Your task to perform on an android device: turn pop-ups off in chrome Image 0: 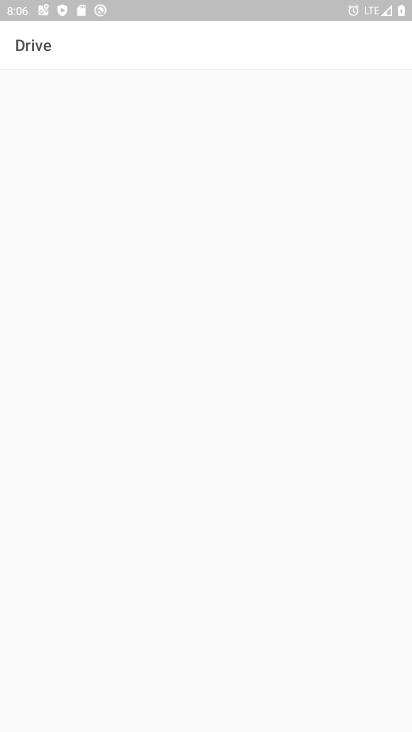
Step 0: press home button
Your task to perform on an android device: turn pop-ups off in chrome Image 1: 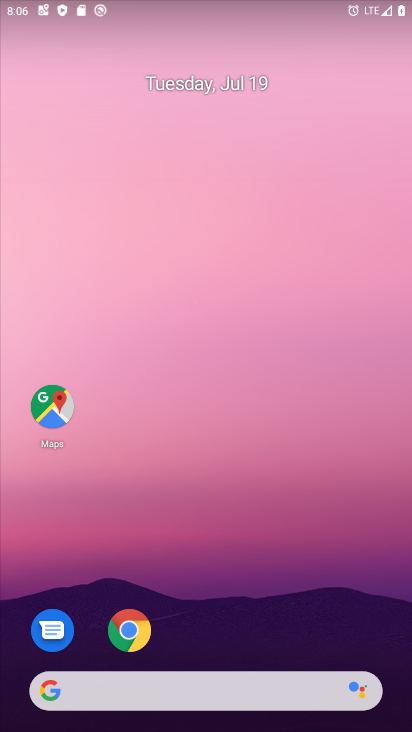
Step 1: drag from (246, 641) to (238, 184)
Your task to perform on an android device: turn pop-ups off in chrome Image 2: 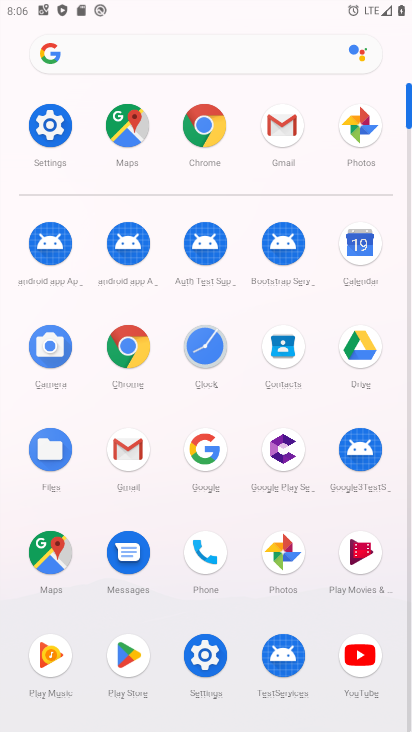
Step 2: click (204, 121)
Your task to perform on an android device: turn pop-ups off in chrome Image 3: 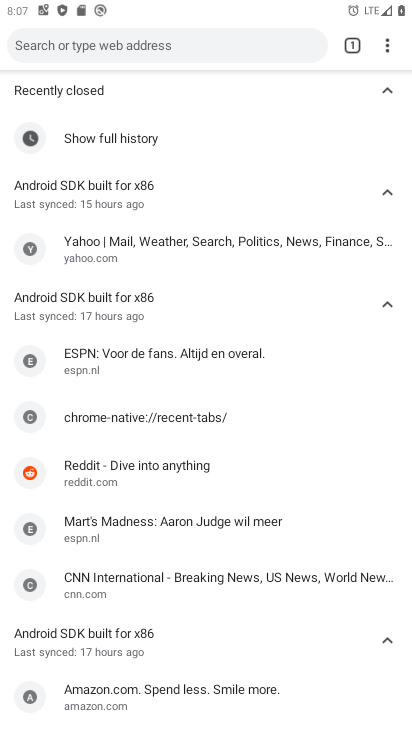
Step 3: drag from (388, 42) to (225, 382)
Your task to perform on an android device: turn pop-ups off in chrome Image 4: 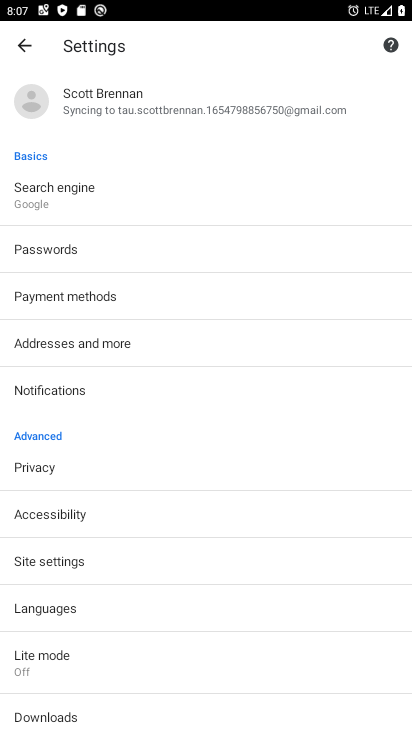
Step 4: click (37, 559)
Your task to perform on an android device: turn pop-ups off in chrome Image 5: 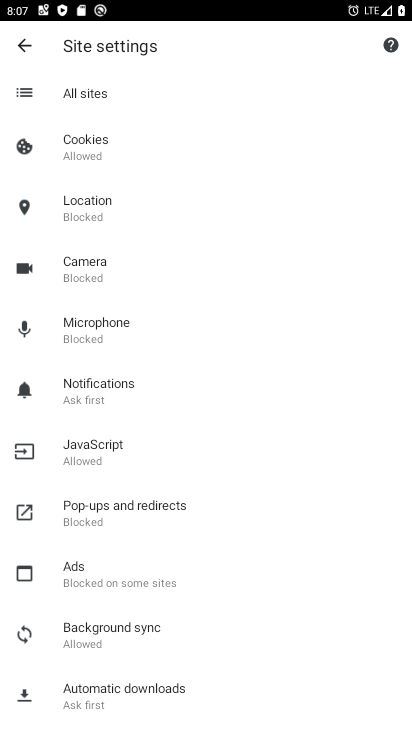
Step 5: click (106, 506)
Your task to perform on an android device: turn pop-ups off in chrome Image 6: 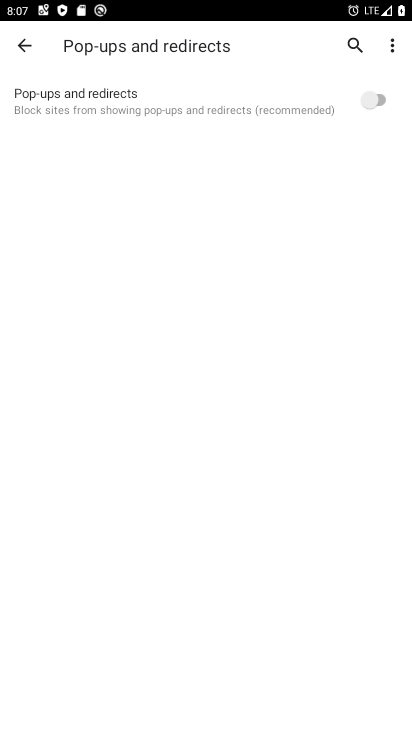
Step 6: task complete